Your task to perform on an android device: change the clock display to digital Image 0: 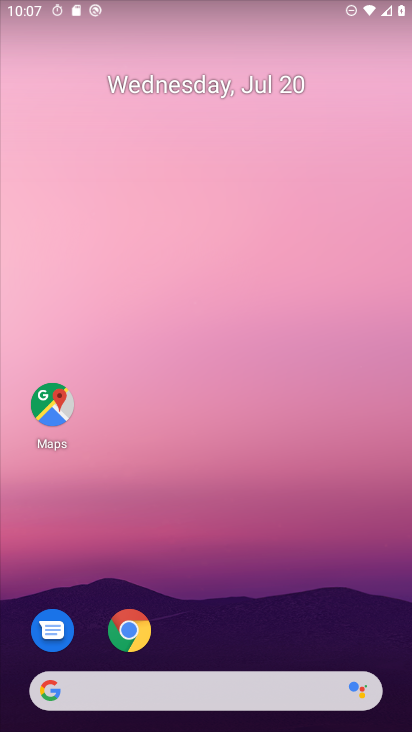
Step 0: drag from (221, 673) to (212, 170)
Your task to perform on an android device: change the clock display to digital Image 1: 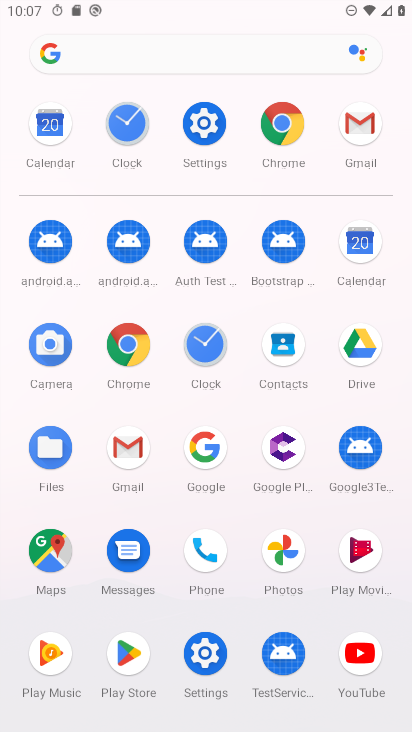
Step 1: click (212, 355)
Your task to perform on an android device: change the clock display to digital Image 2: 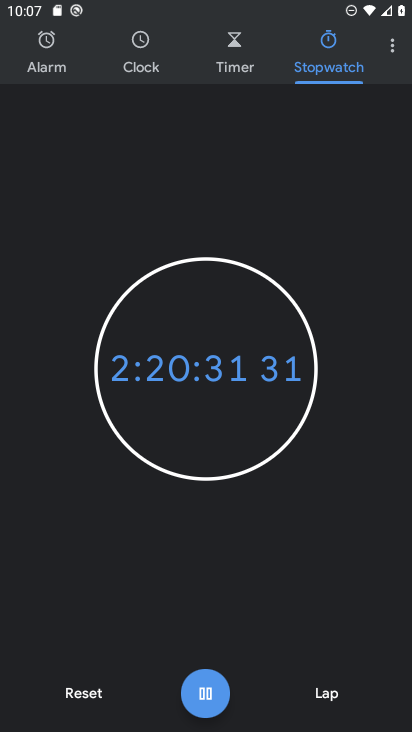
Step 2: click (398, 50)
Your task to perform on an android device: change the clock display to digital Image 3: 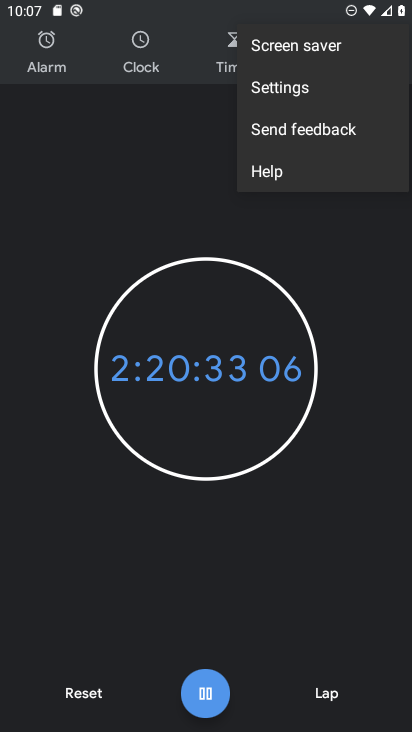
Step 3: click (301, 84)
Your task to perform on an android device: change the clock display to digital Image 4: 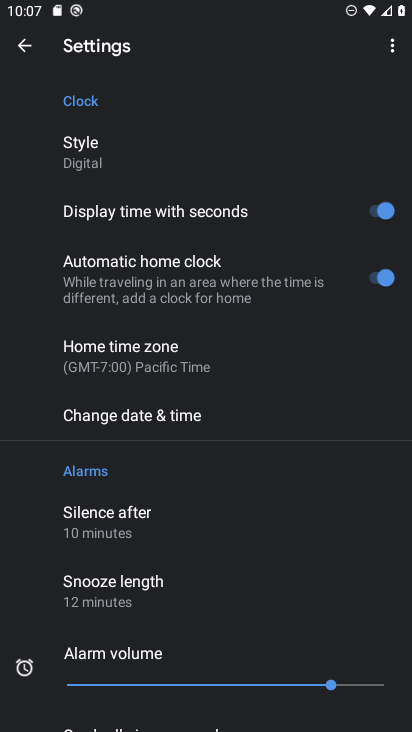
Step 4: task complete